Your task to perform on an android device: uninstall "Google Keep" Image 0: 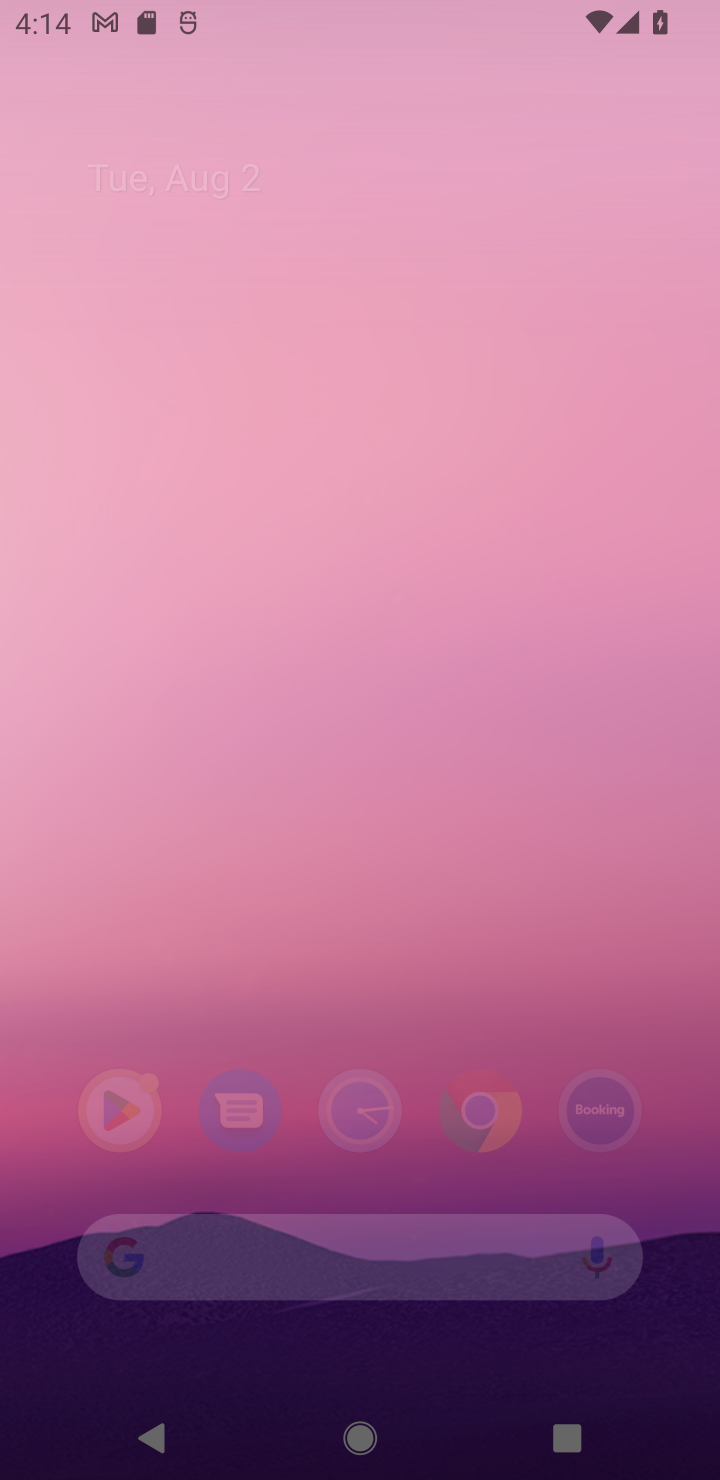
Step 0: press home button
Your task to perform on an android device: uninstall "Google Keep" Image 1: 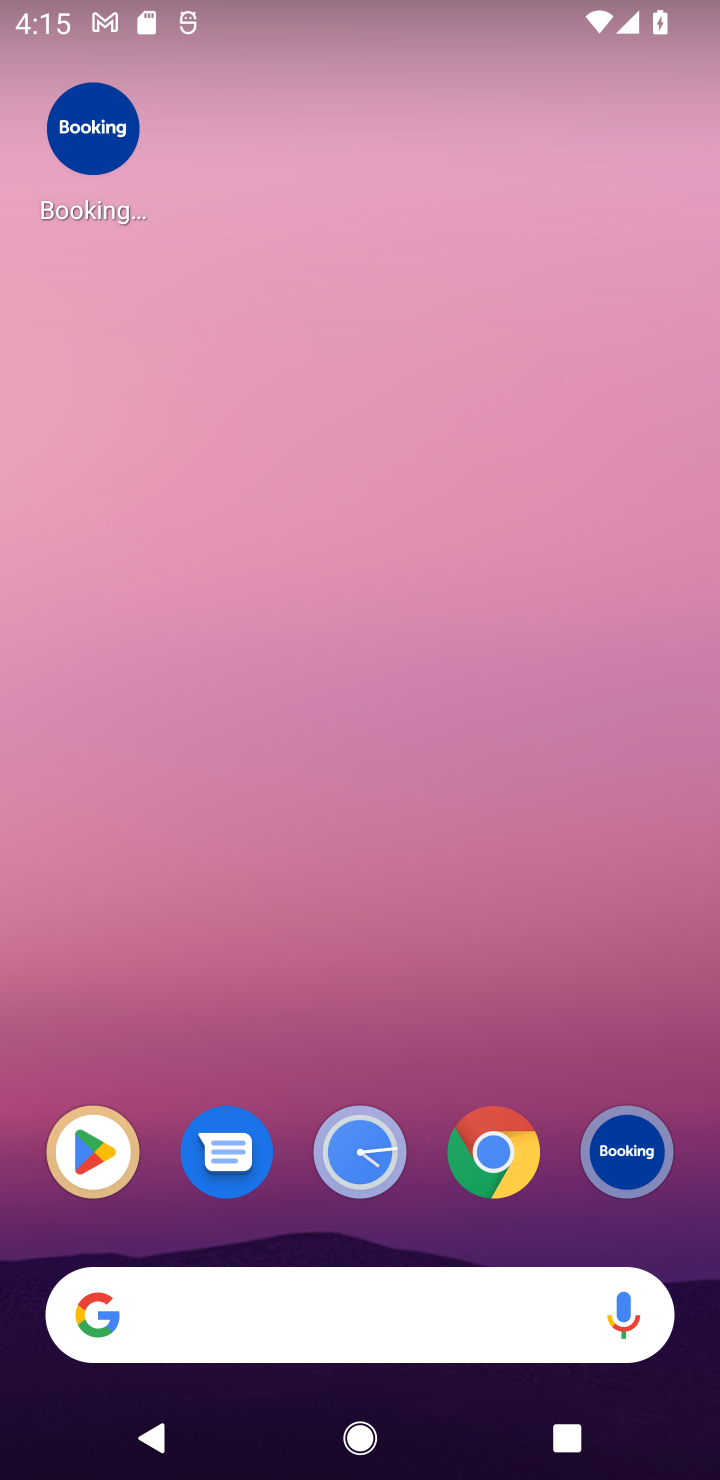
Step 1: click (85, 1158)
Your task to perform on an android device: uninstall "Google Keep" Image 2: 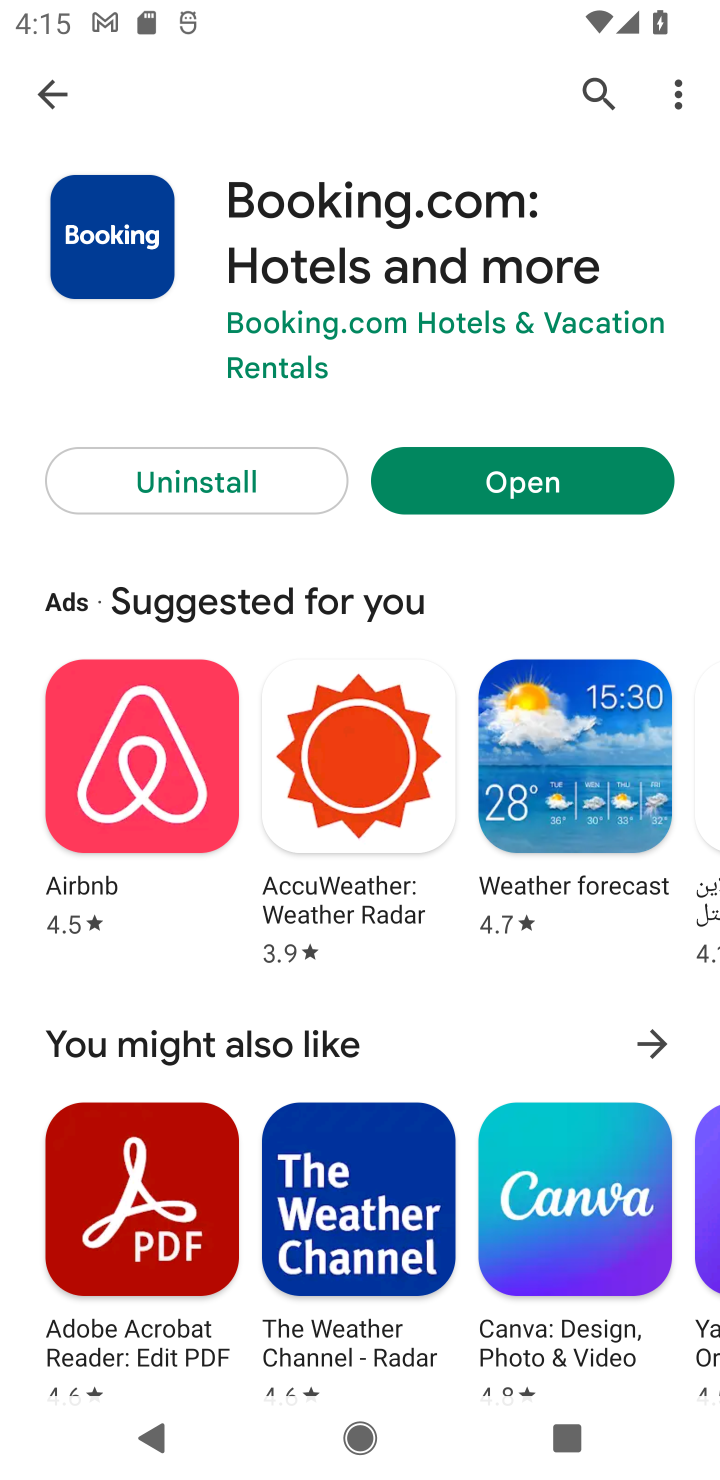
Step 2: click (59, 119)
Your task to perform on an android device: uninstall "Google Keep" Image 3: 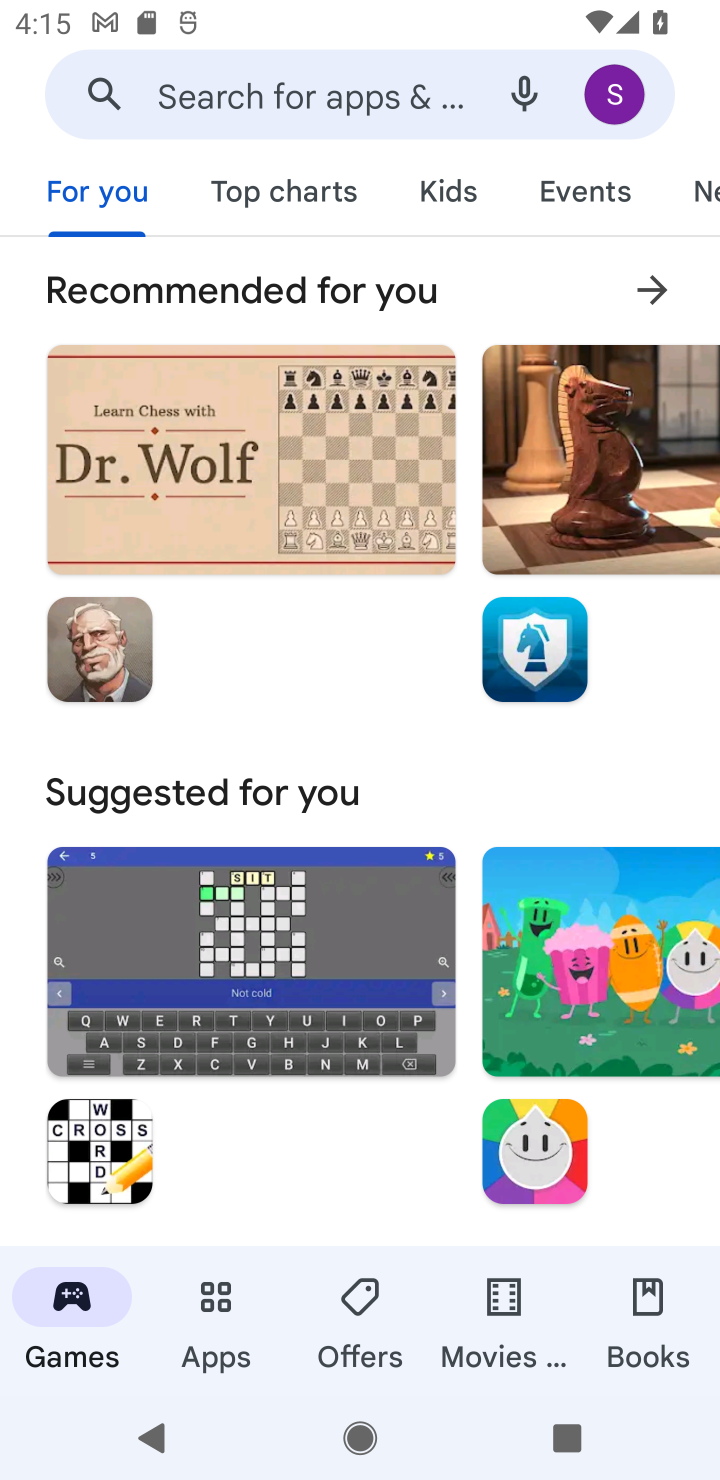
Step 3: click (209, 82)
Your task to perform on an android device: uninstall "Google Keep" Image 4: 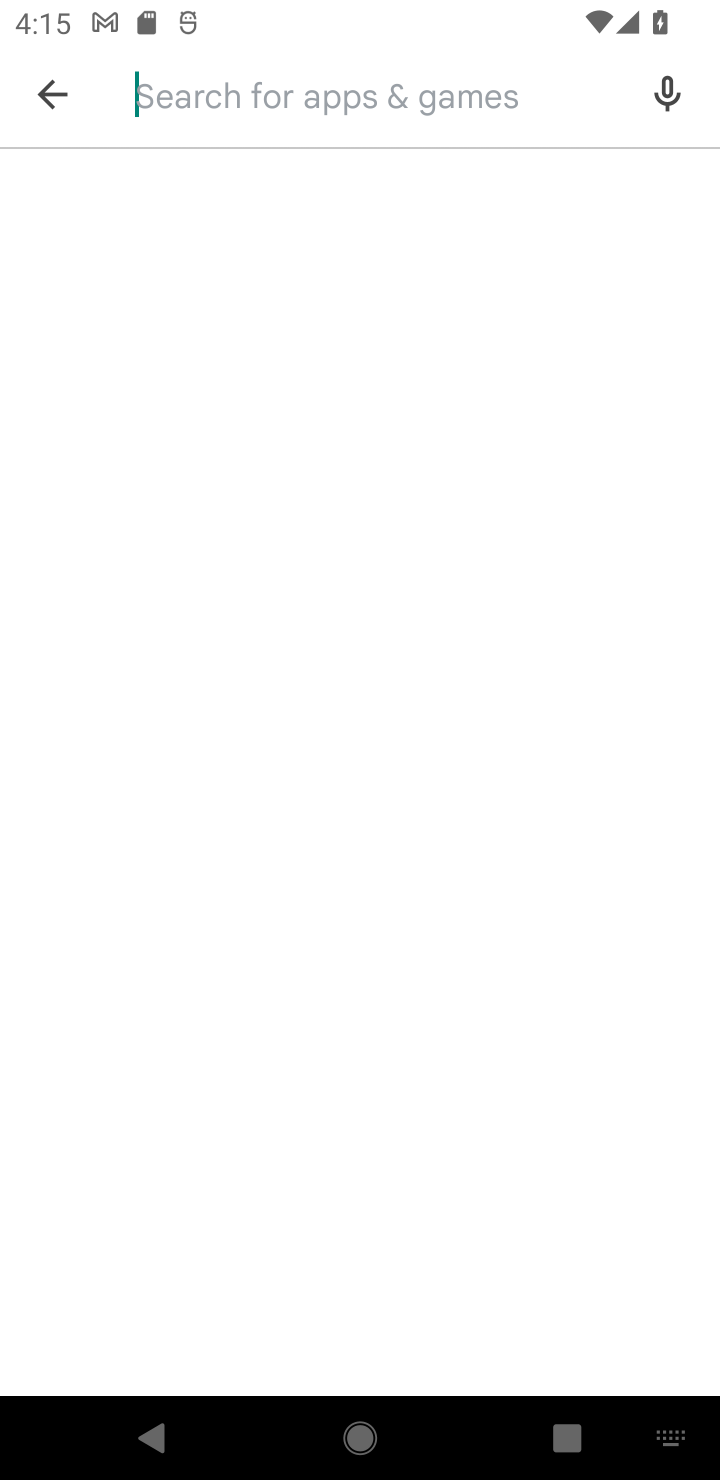
Step 4: type "Google Keep"
Your task to perform on an android device: uninstall "Google Keep" Image 5: 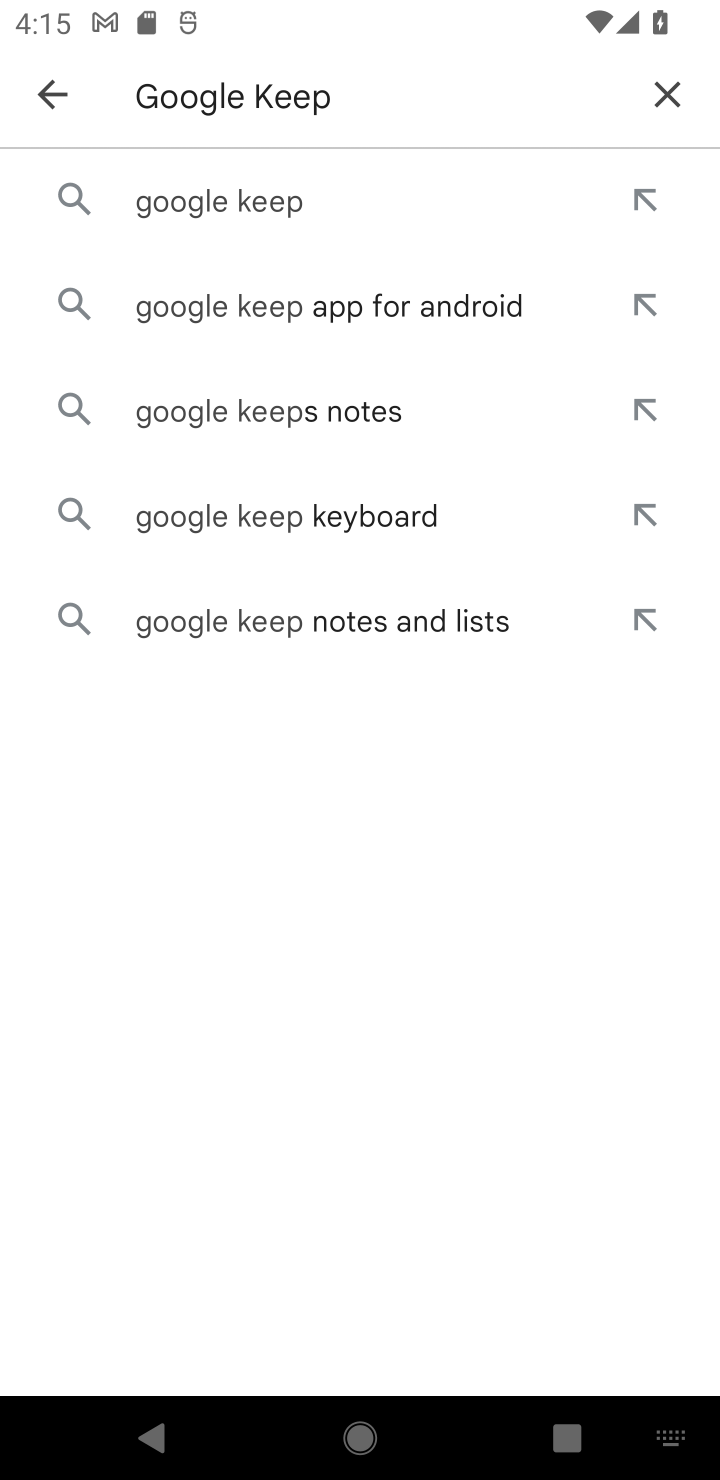
Step 5: click (210, 198)
Your task to perform on an android device: uninstall "Google Keep" Image 6: 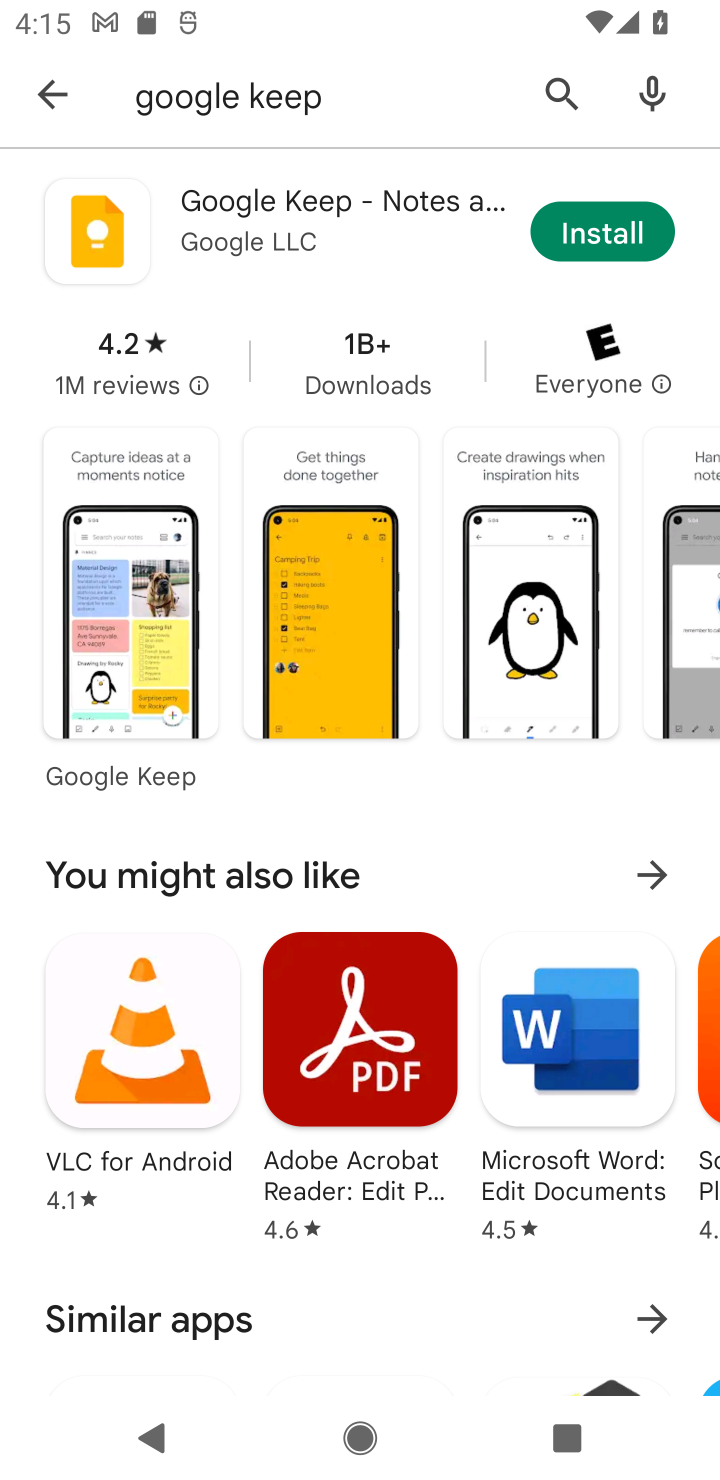
Step 6: task complete